Your task to perform on an android device: open wifi settings Image 0: 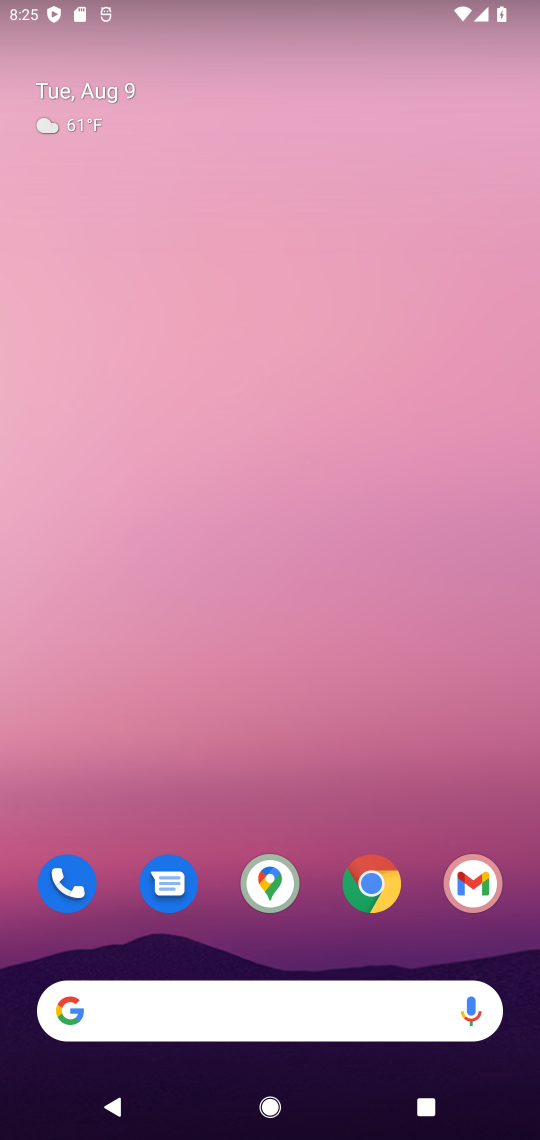
Step 0: drag from (303, 752) to (276, 154)
Your task to perform on an android device: open wifi settings Image 1: 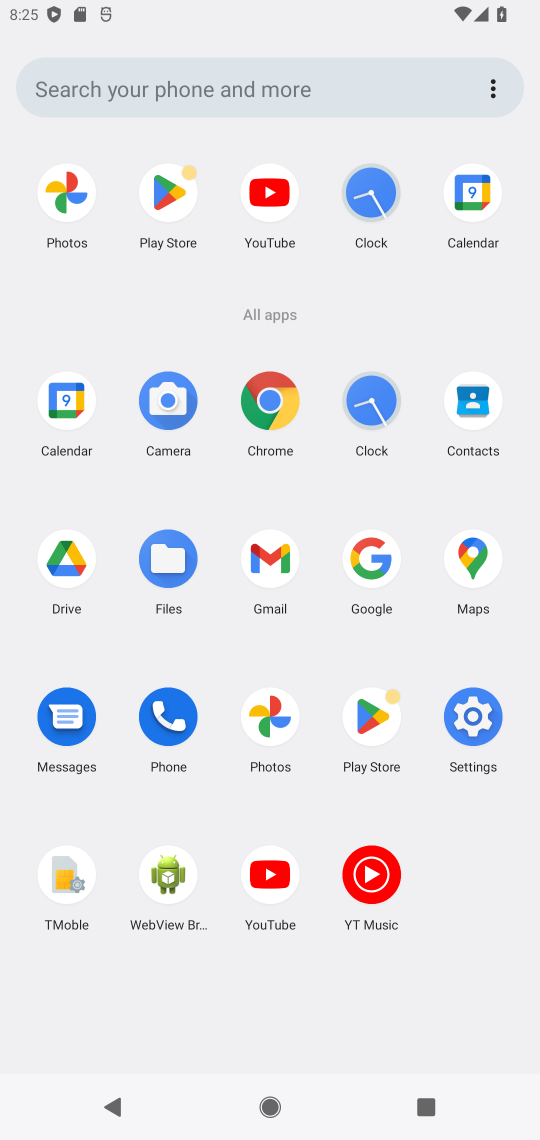
Step 1: click (478, 711)
Your task to perform on an android device: open wifi settings Image 2: 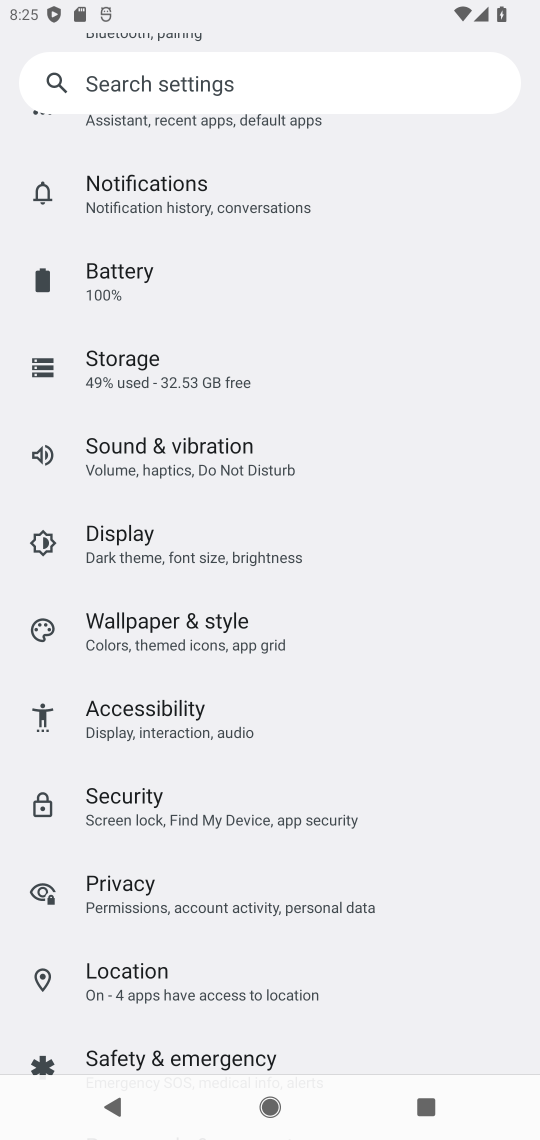
Step 2: drag from (201, 197) to (259, 877)
Your task to perform on an android device: open wifi settings Image 3: 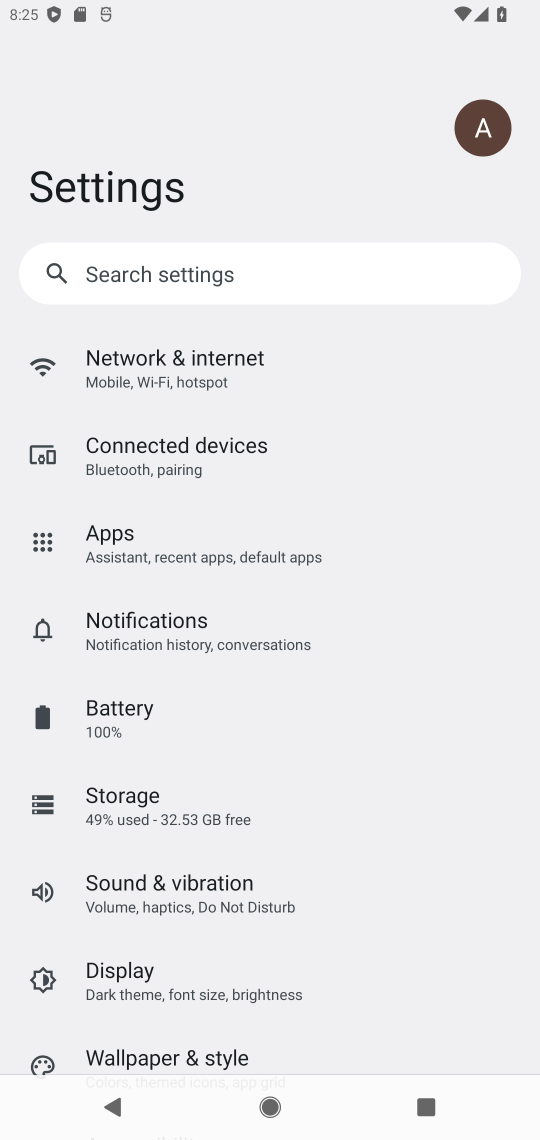
Step 3: click (167, 366)
Your task to perform on an android device: open wifi settings Image 4: 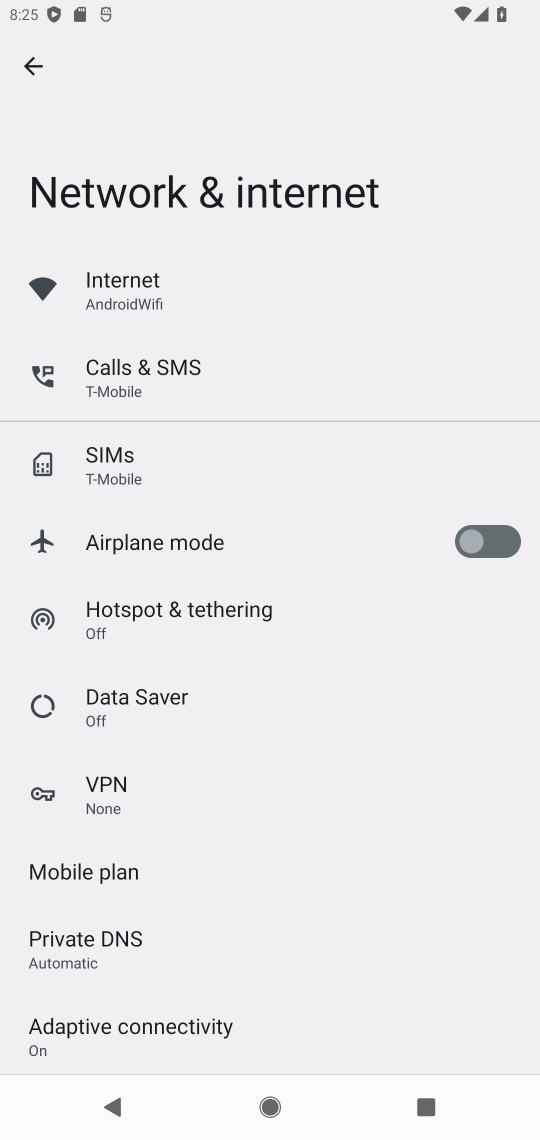
Step 4: click (150, 298)
Your task to perform on an android device: open wifi settings Image 5: 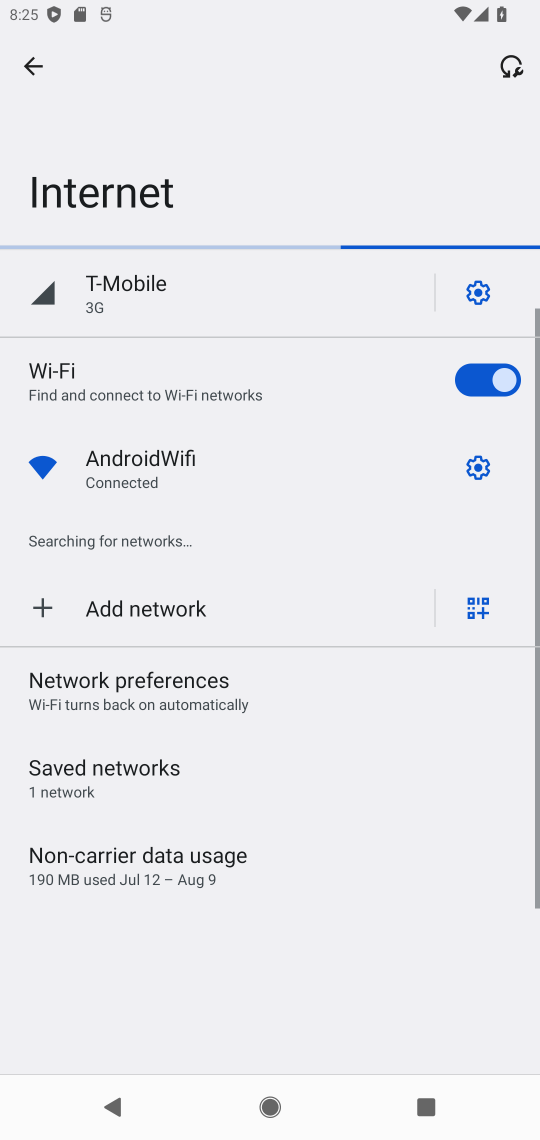
Step 5: click (483, 457)
Your task to perform on an android device: open wifi settings Image 6: 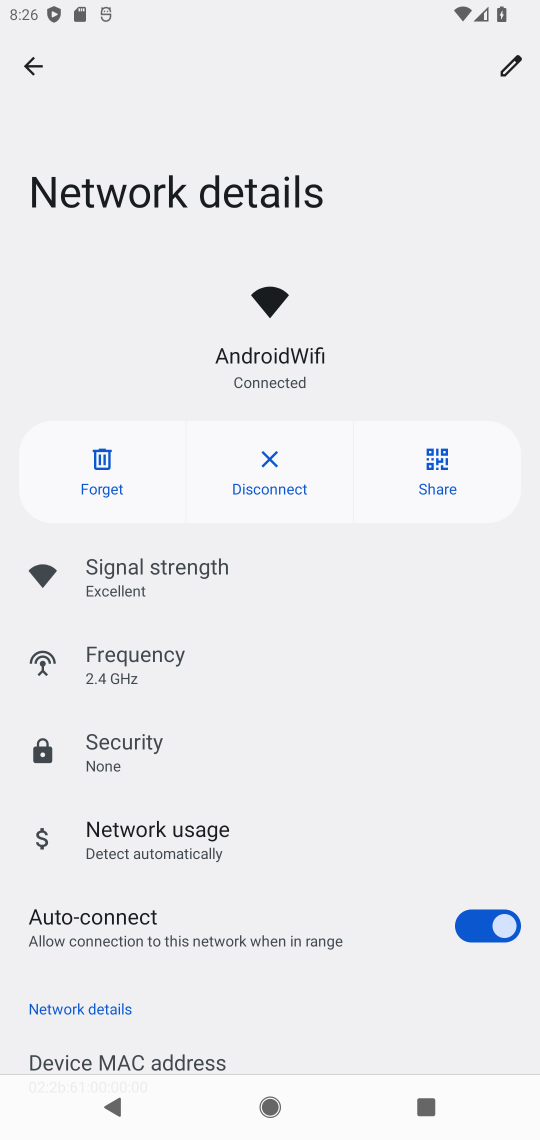
Step 6: task complete